Your task to perform on an android device: turn off location history Image 0: 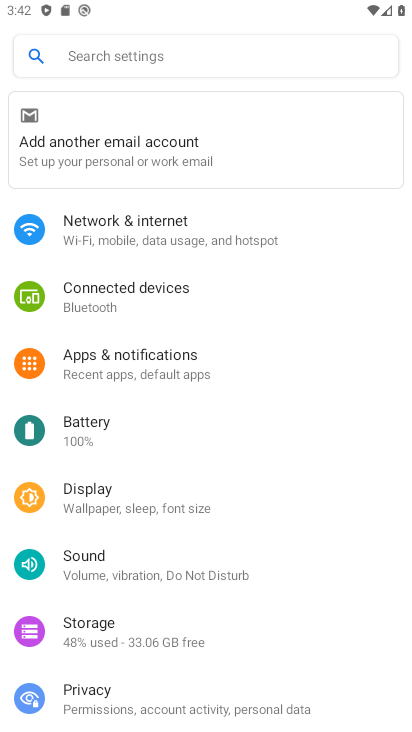
Step 0: press home button
Your task to perform on an android device: turn off location history Image 1: 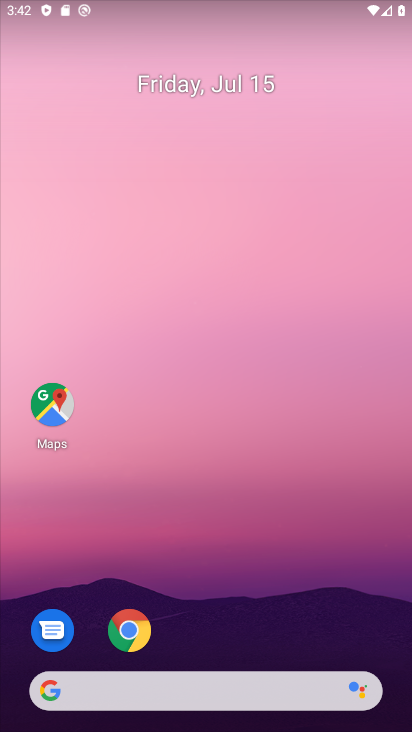
Step 1: drag from (237, 631) to (287, 125)
Your task to perform on an android device: turn off location history Image 2: 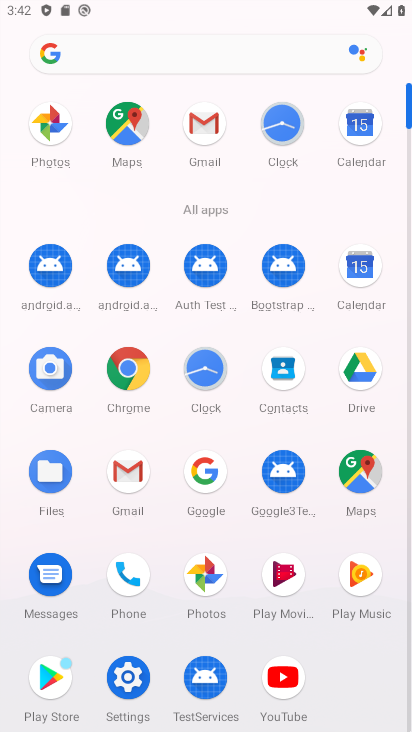
Step 2: click (143, 684)
Your task to perform on an android device: turn off location history Image 3: 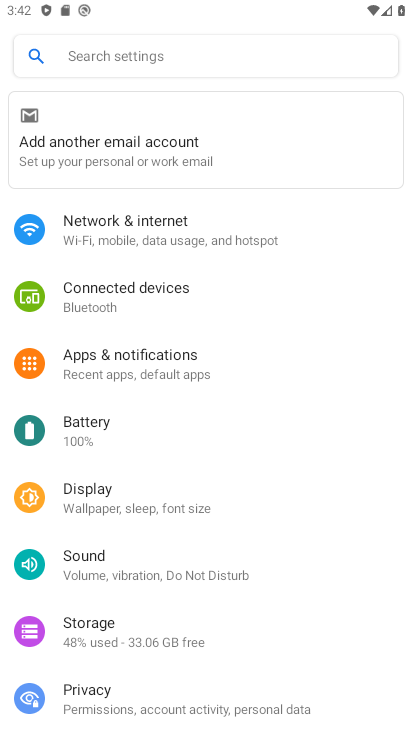
Step 3: drag from (109, 654) to (169, 401)
Your task to perform on an android device: turn off location history Image 4: 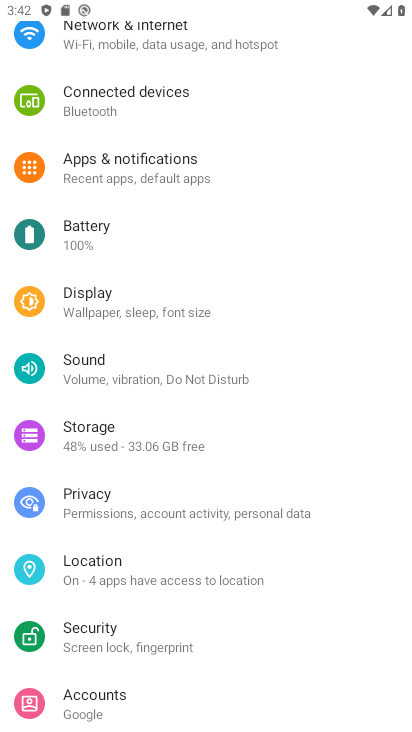
Step 4: click (121, 577)
Your task to perform on an android device: turn off location history Image 5: 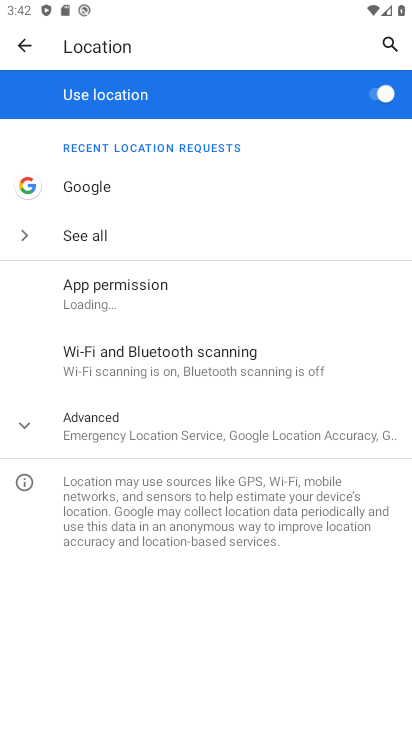
Step 5: click (132, 445)
Your task to perform on an android device: turn off location history Image 6: 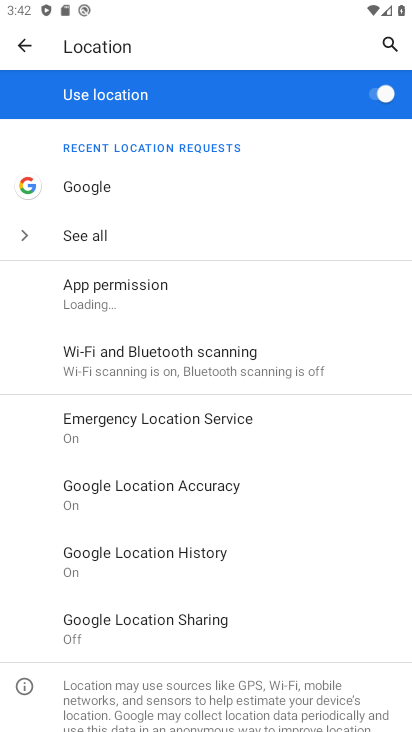
Step 6: click (207, 561)
Your task to perform on an android device: turn off location history Image 7: 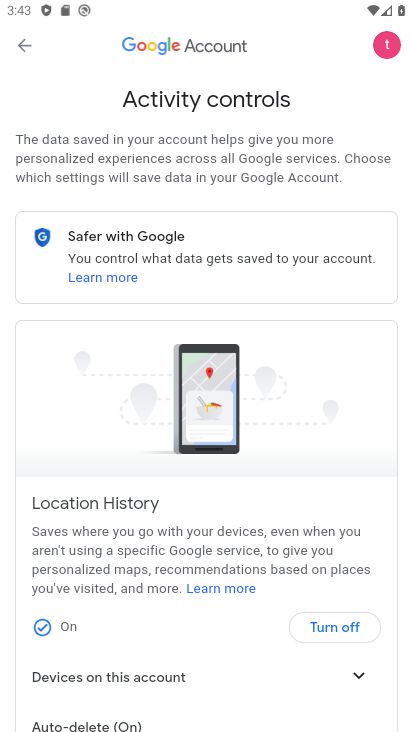
Step 7: click (324, 629)
Your task to perform on an android device: turn off location history Image 8: 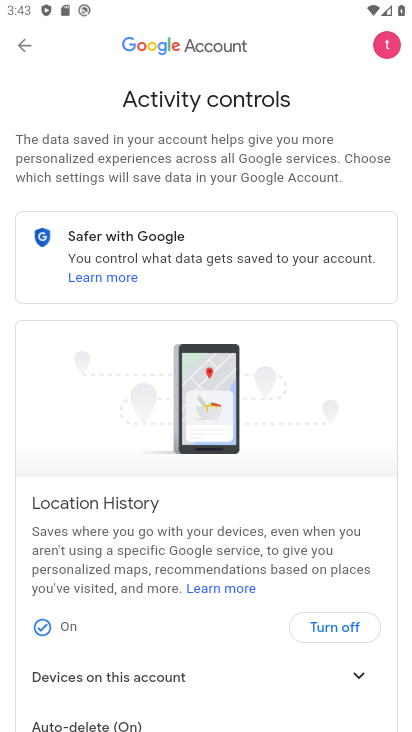
Step 8: click (311, 627)
Your task to perform on an android device: turn off location history Image 9: 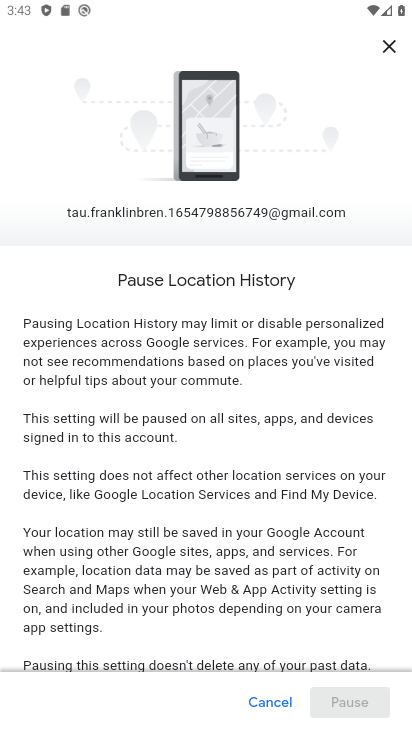
Step 9: drag from (263, 578) to (282, 195)
Your task to perform on an android device: turn off location history Image 10: 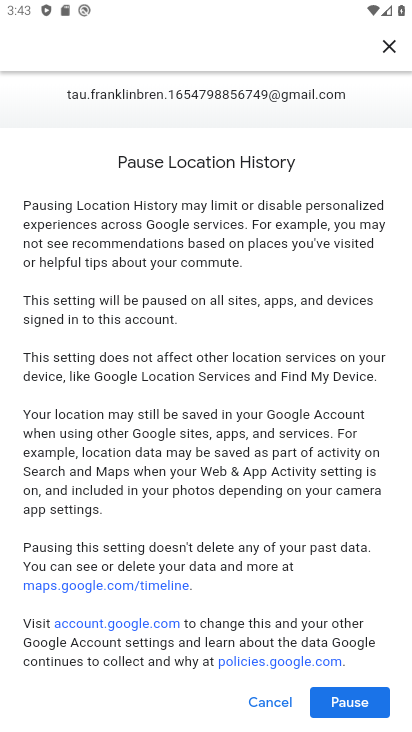
Step 10: click (352, 703)
Your task to perform on an android device: turn off location history Image 11: 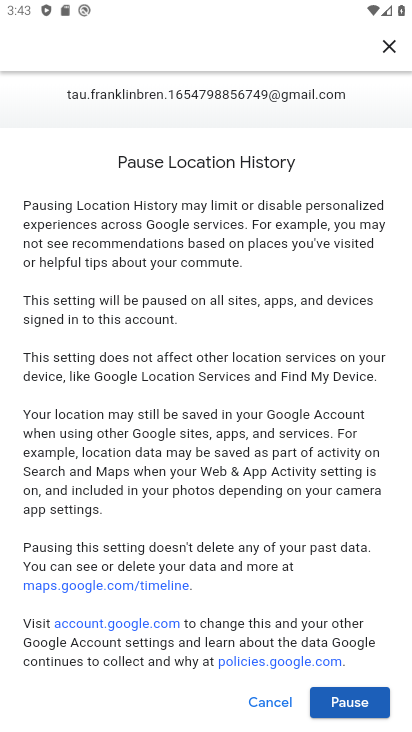
Step 11: click (357, 721)
Your task to perform on an android device: turn off location history Image 12: 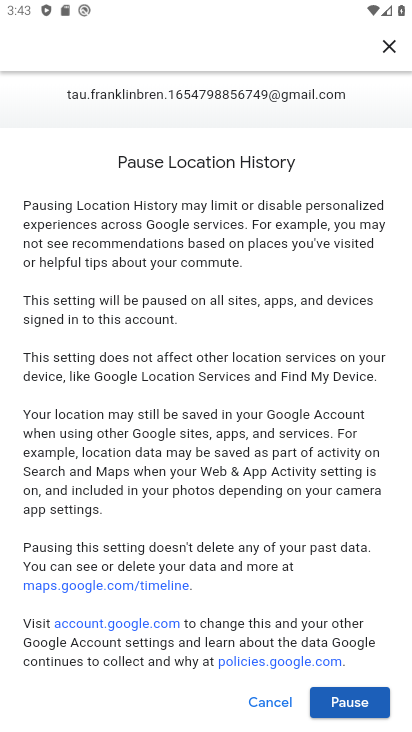
Step 12: click (343, 709)
Your task to perform on an android device: turn off location history Image 13: 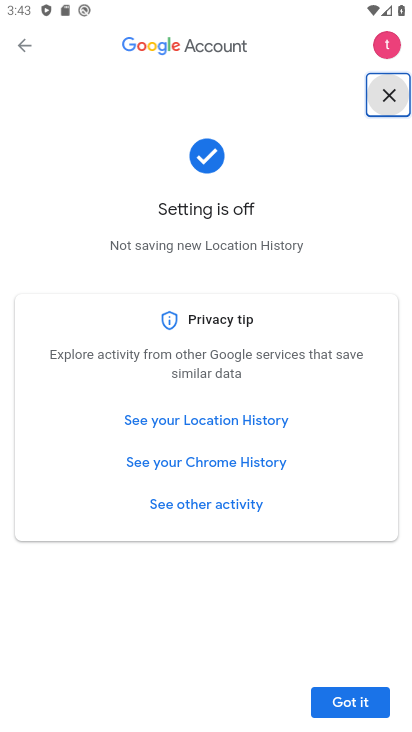
Step 13: click (335, 706)
Your task to perform on an android device: turn off location history Image 14: 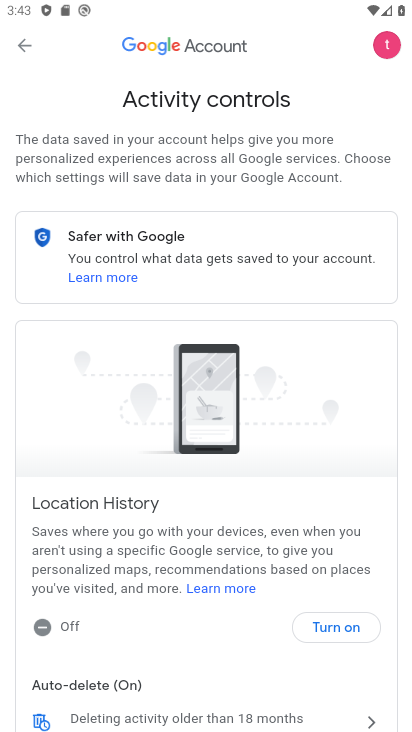
Step 14: task complete